Your task to perform on an android device: turn on sleep mode Image 0: 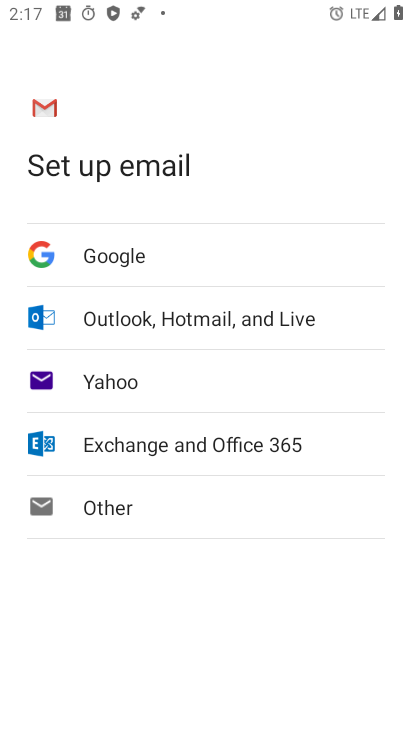
Step 0: press home button
Your task to perform on an android device: turn on sleep mode Image 1: 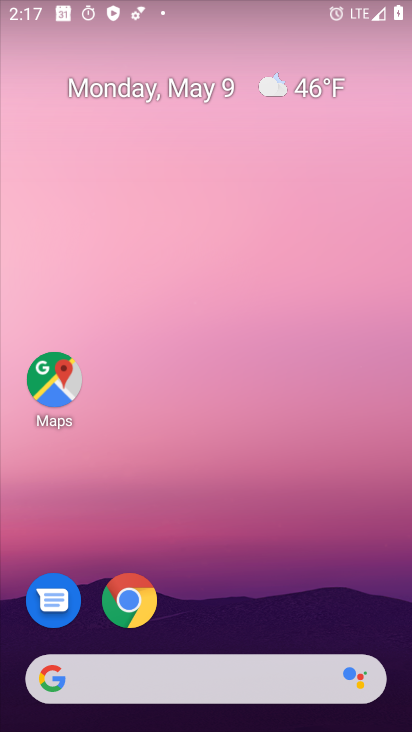
Step 1: drag from (188, 675) to (197, 157)
Your task to perform on an android device: turn on sleep mode Image 2: 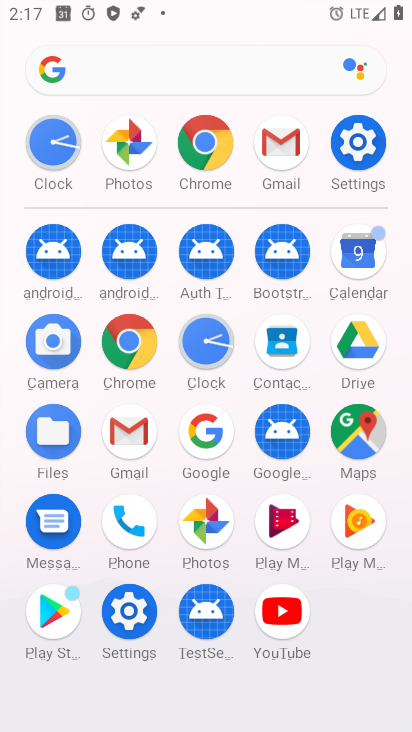
Step 2: click (149, 654)
Your task to perform on an android device: turn on sleep mode Image 3: 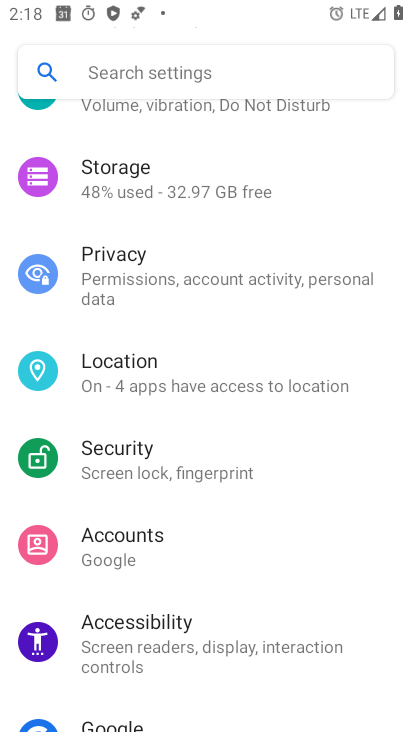
Step 3: drag from (160, 368) to (204, 675)
Your task to perform on an android device: turn on sleep mode Image 4: 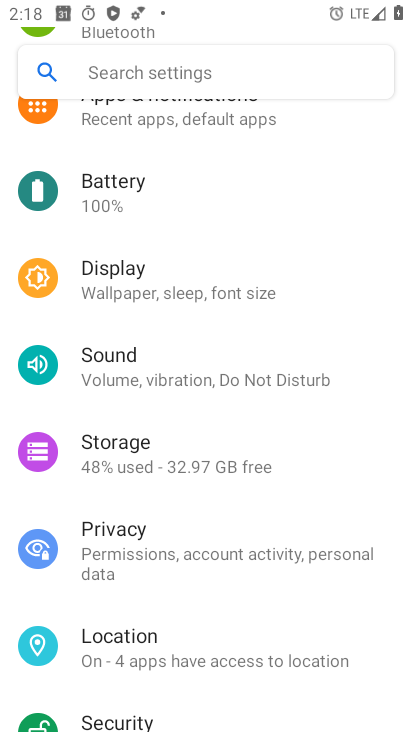
Step 4: drag from (188, 221) to (229, 670)
Your task to perform on an android device: turn on sleep mode Image 5: 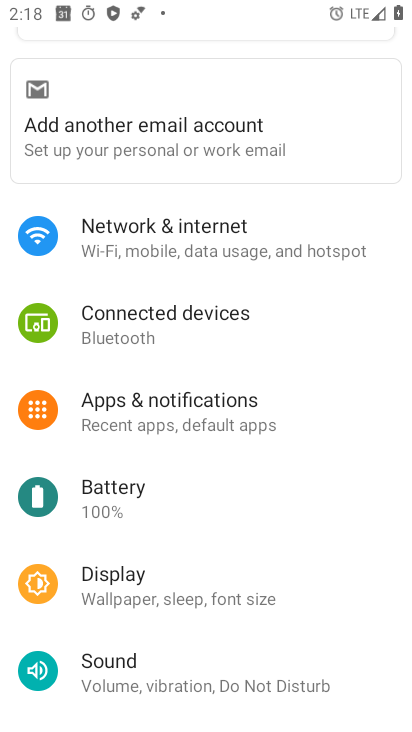
Step 5: click (177, 258)
Your task to perform on an android device: turn on sleep mode Image 6: 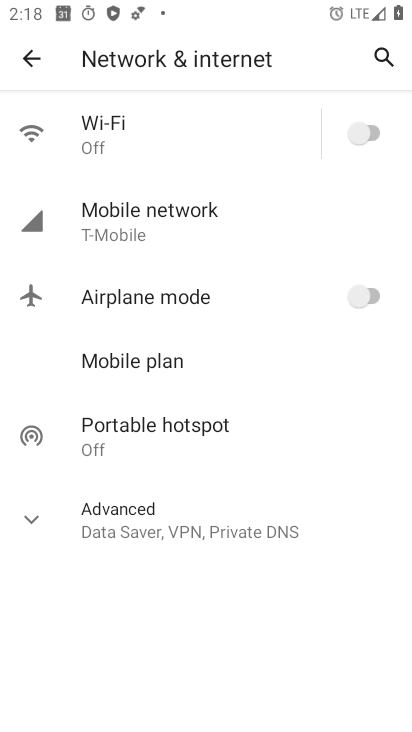
Step 6: task complete